Your task to perform on an android device: open chrome and create a bookmark for the current page Image 0: 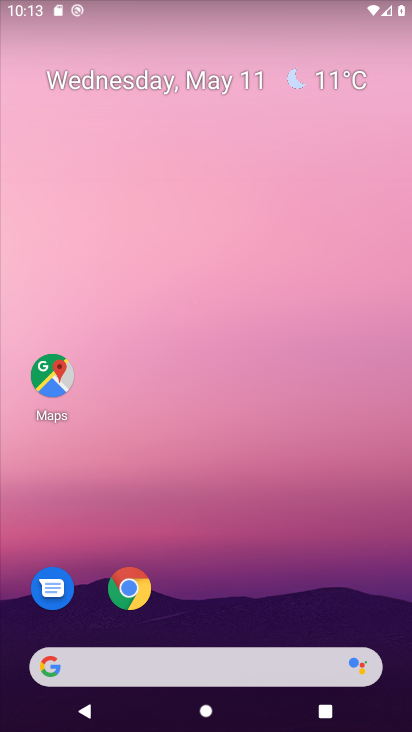
Step 0: click (146, 597)
Your task to perform on an android device: open chrome and create a bookmark for the current page Image 1: 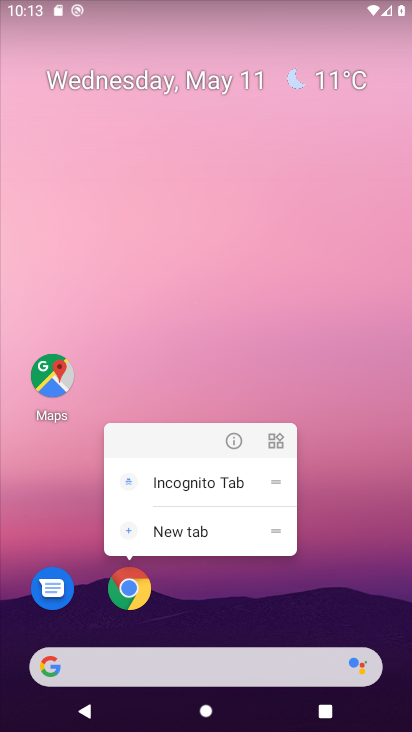
Step 1: click (129, 603)
Your task to perform on an android device: open chrome and create a bookmark for the current page Image 2: 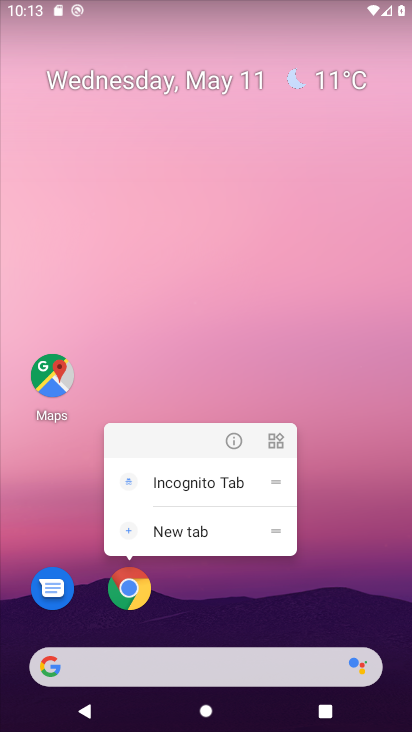
Step 2: click (134, 594)
Your task to perform on an android device: open chrome and create a bookmark for the current page Image 3: 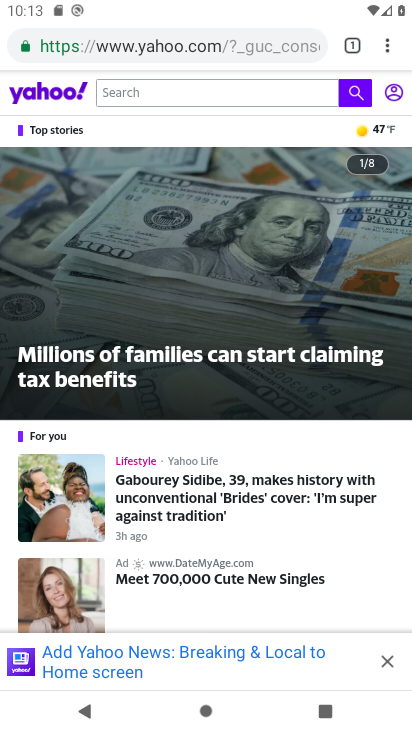
Step 3: task complete